Your task to perform on an android device: turn off picture-in-picture Image 0: 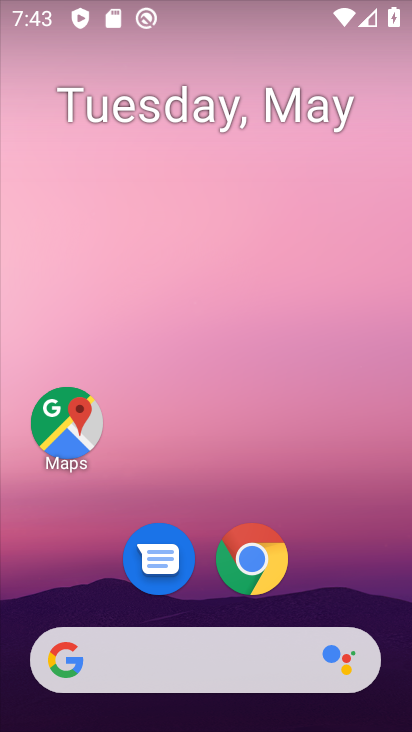
Step 0: click (347, 22)
Your task to perform on an android device: turn off picture-in-picture Image 1: 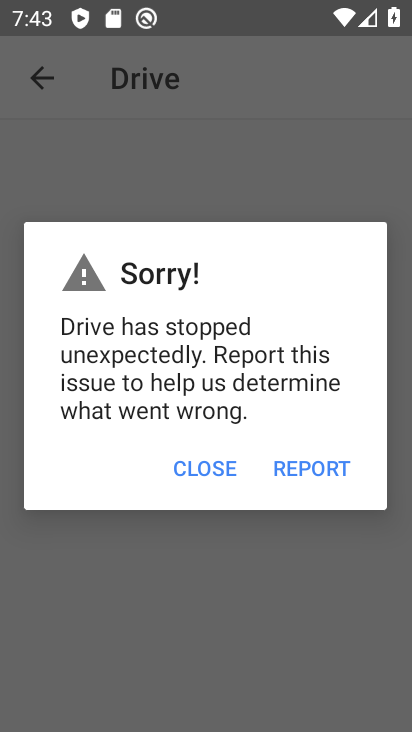
Step 1: click (200, 479)
Your task to perform on an android device: turn off picture-in-picture Image 2: 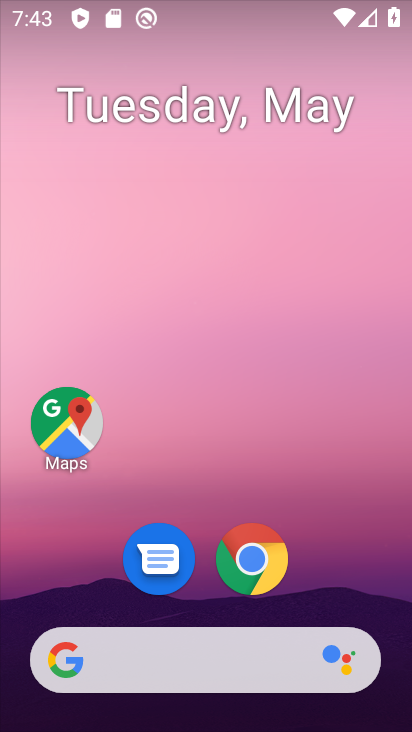
Step 2: click (269, 570)
Your task to perform on an android device: turn off picture-in-picture Image 3: 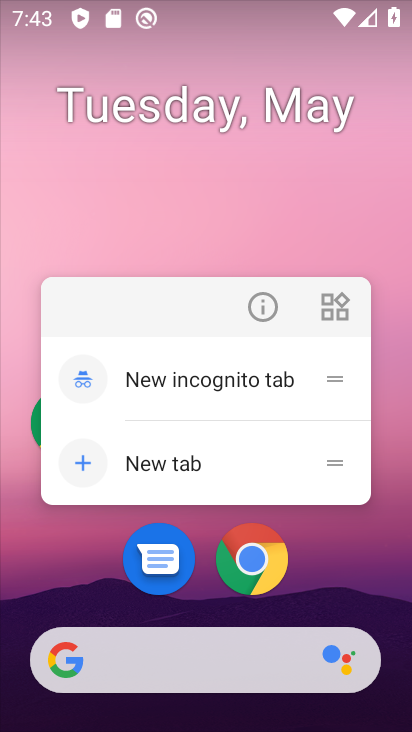
Step 3: click (267, 315)
Your task to perform on an android device: turn off picture-in-picture Image 4: 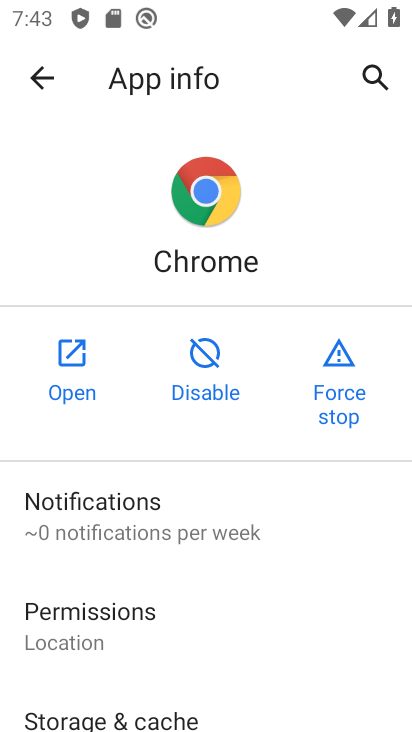
Step 4: drag from (295, 565) to (315, 82)
Your task to perform on an android device: turn off picture-in-picture Image 5: 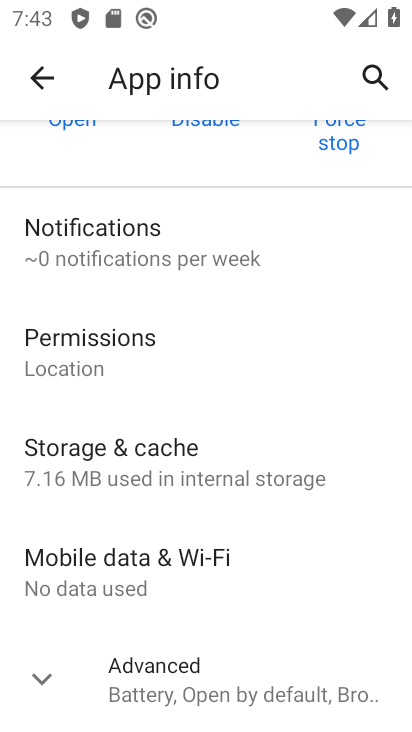
Step 5: click (142, 696)
Your task to perform on an android device: turn off picture-in-picture Image 6: 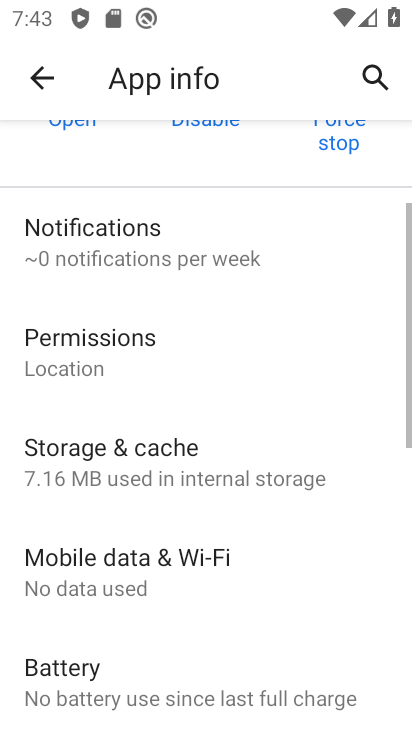
Step 6: drag from (135, 689) to (202, 205)
Your task to perform on an android device: turn off picture-in-picture Image 7: 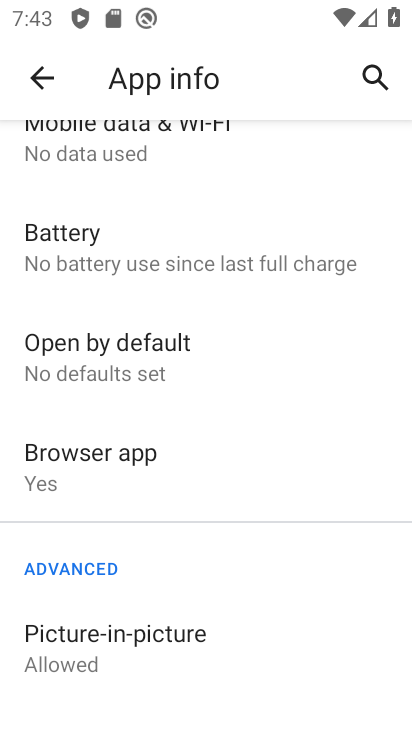
Step 7: click (106, 635)
Your task to perform on an android device: turn off picture-in-picture Image 8: 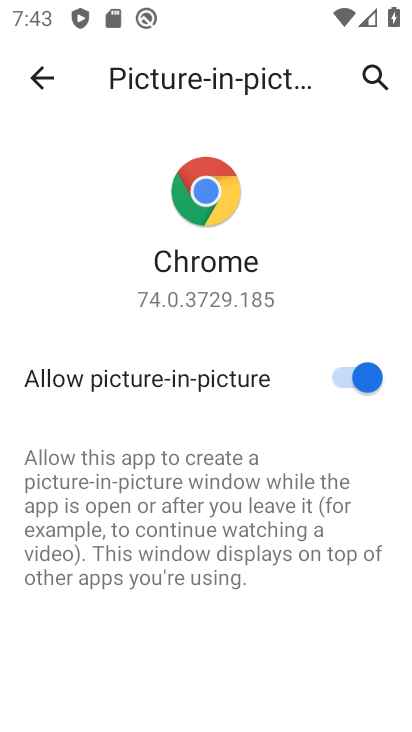
Step 8: click (347, 385)
Your task to perform on an android device: turn off picture-in-picture Image 9: 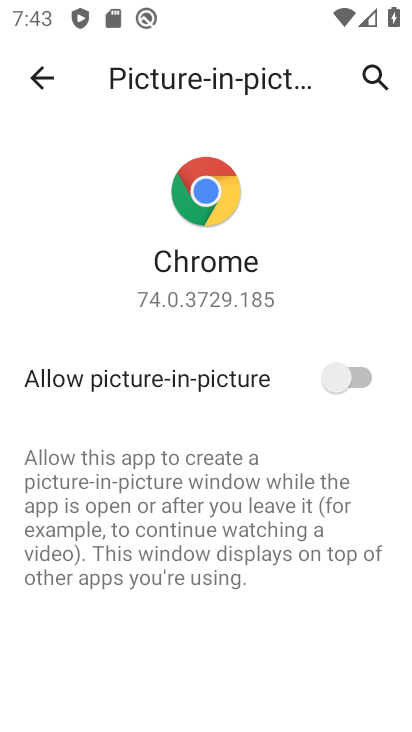
Step 9: task complete